Your task to perform on an android device: empty trash in google photos Image 0: 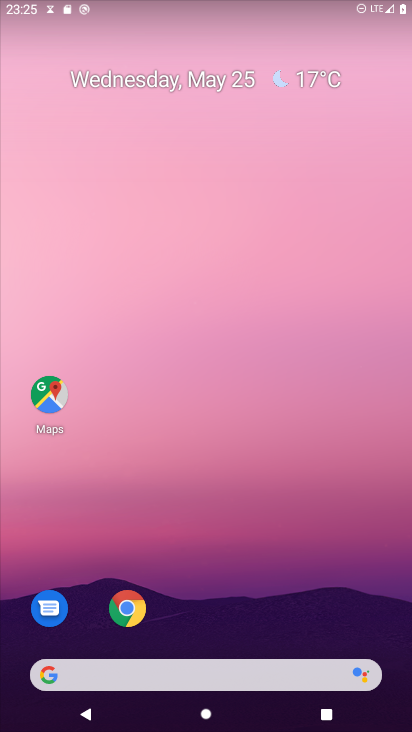
Step 0: drag from (287, 585) to (212, 49)
Your task to perform on an android device: empty trash in google photos Image 1: 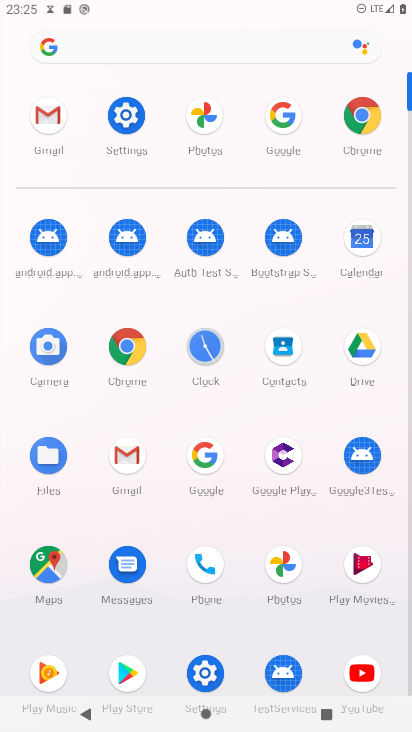
Step 1: click (275, 563)
Your task to perform on an android device: empty trash in google photos Image 2: 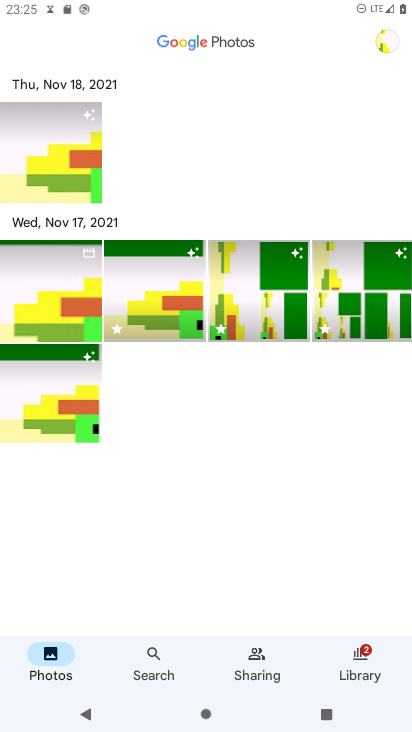
Step 2: click (376, 662)
Your task to perform on an android device: empty trash in google photos Image 3: 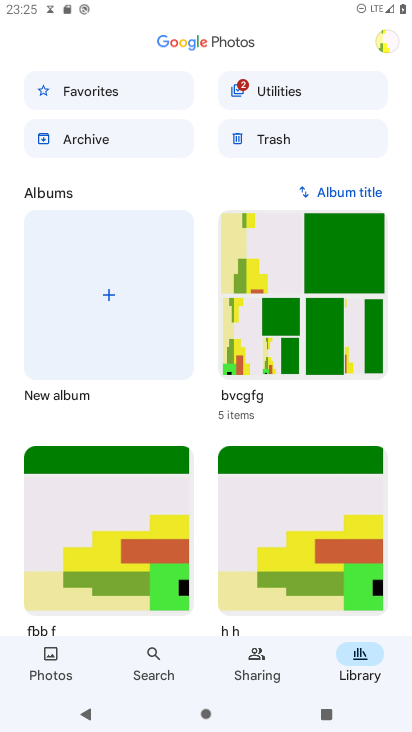
Step 3: click (270, 140)
Your task to perform on an android device: empty trash in google photos Image 4: 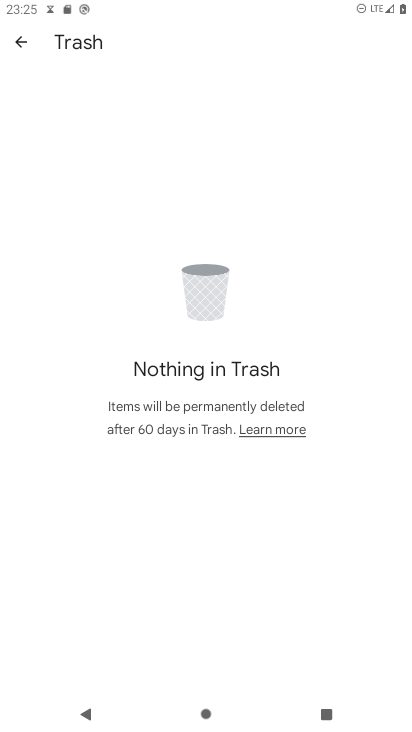
Step 4: task complete